Your task to perform on an android device: Go to Android settings Image 0: 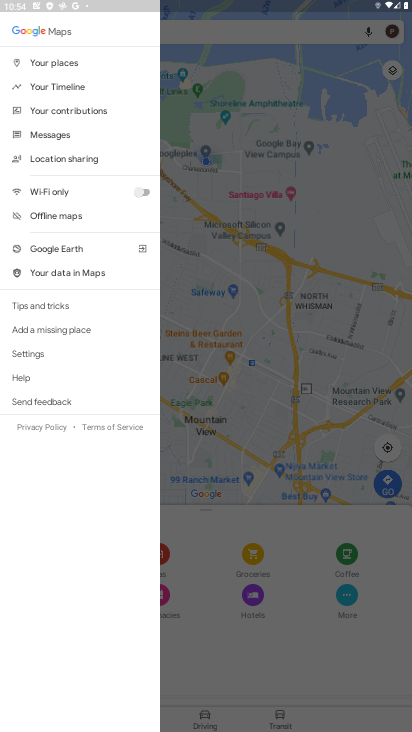
Step 0: drag from (217, 485) to (213, 295)
Your task to perform on an android device: Go to Android settings Image 1: 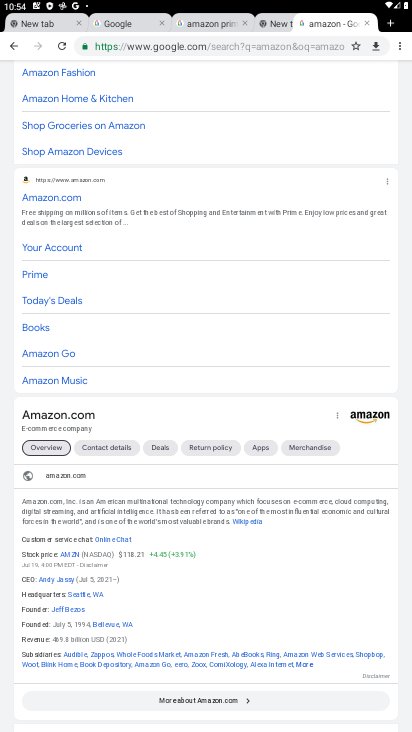
Step 1: drag from (208, 316) to (360, 600)
Your task to perform on an android device: Go to Android settings Image 2: 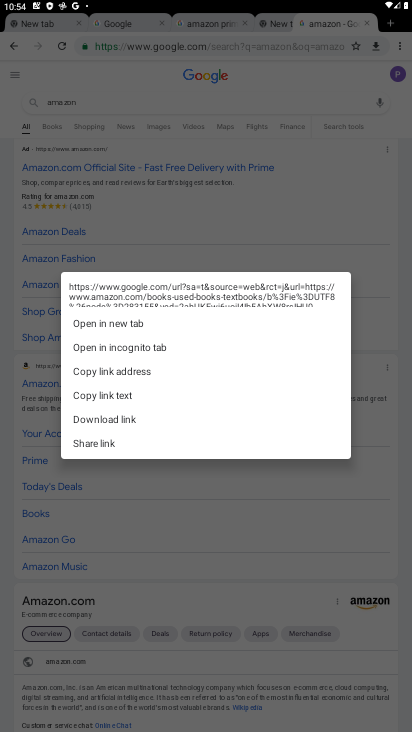
Step 2: click (282, 529)
Your task to perform on an android device: Go to Android settings Image 3: 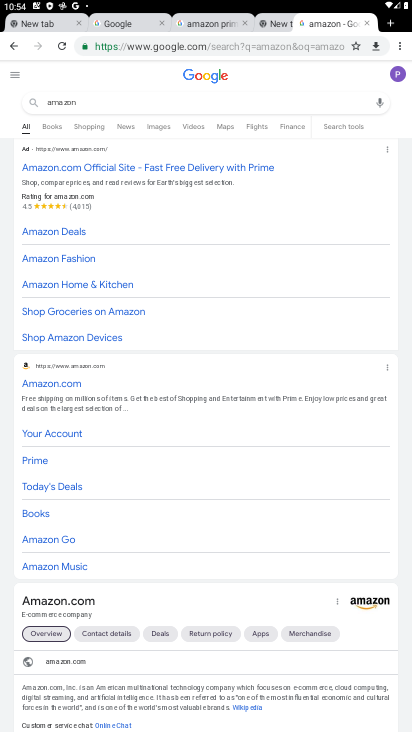
Step 3: click (404, 51)
Your task to perform on an android device: Go to Android settings Image 4: 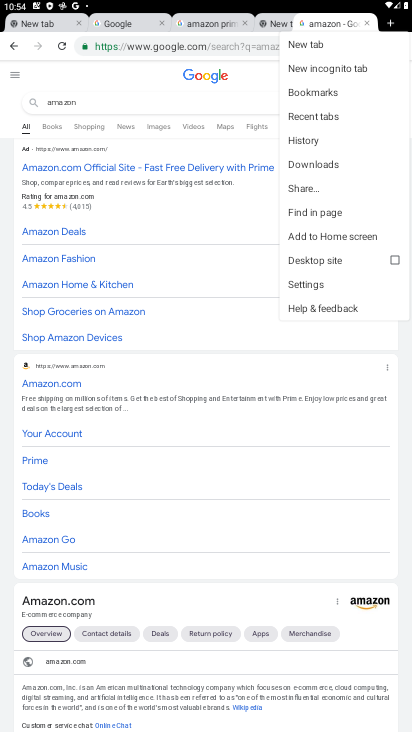
Step 4: click (318, 284)
Your task to perform on an android device: Go to Android settings Image 5: 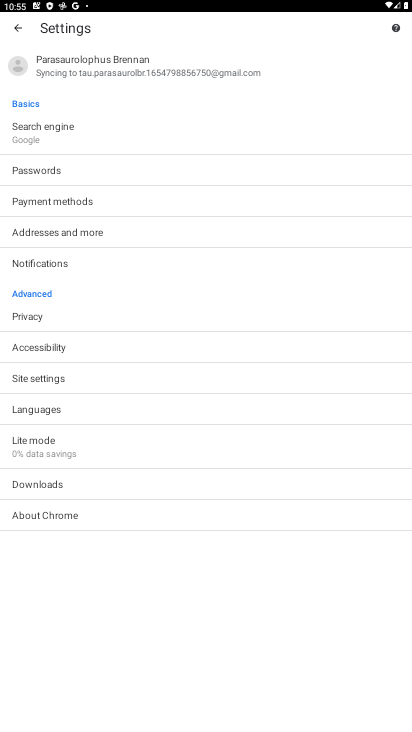
Step 5: click (110, 379)
Your task to perform on an android device: Go to Android settings Image 6: 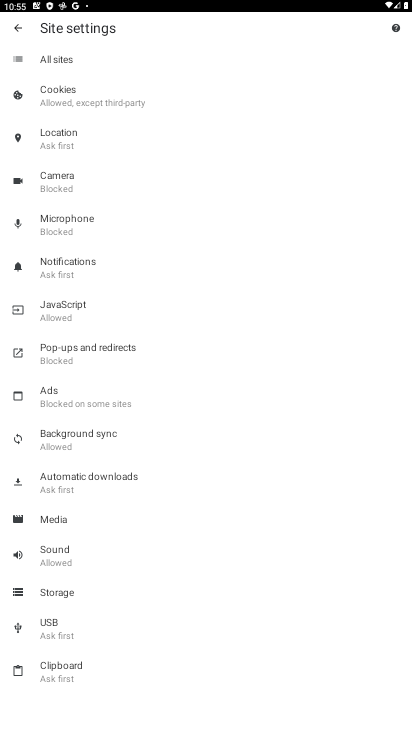
Step 6: task complete